Your task to perform on an android device: Find coffee shops on Maps Image 0: 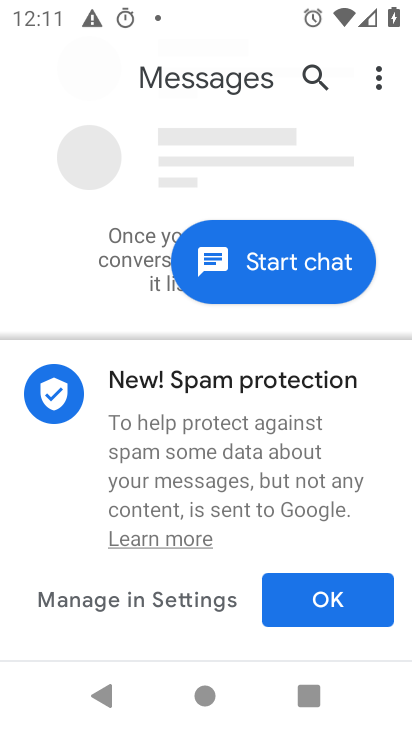
Step 0: press back button
Your task to perform on an android device: Find coffee shops on Maps Image 1: 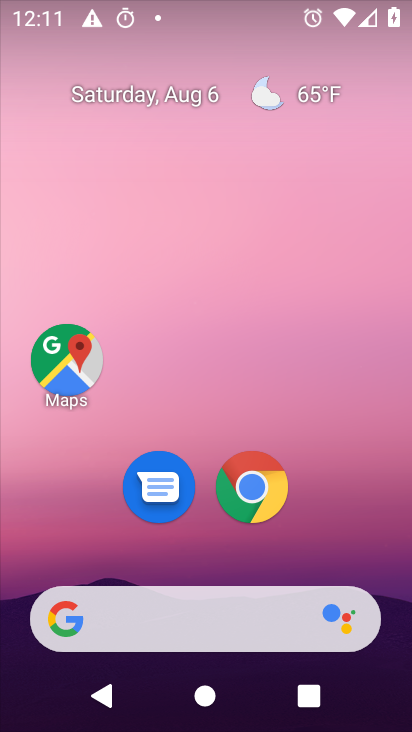
Step 1: click (81, 369)
Your task to perform on an android device: Find coffee shops on Maps Image 2: 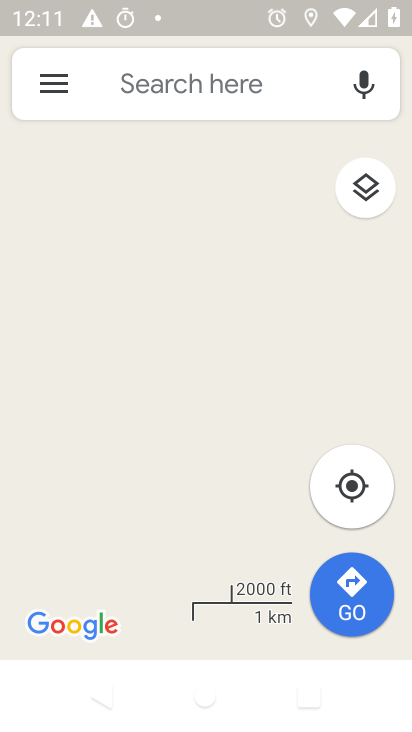
Step 2: click (200, 98)
Your task to perform on an android device: Find coffee shops on Maps Image 3: 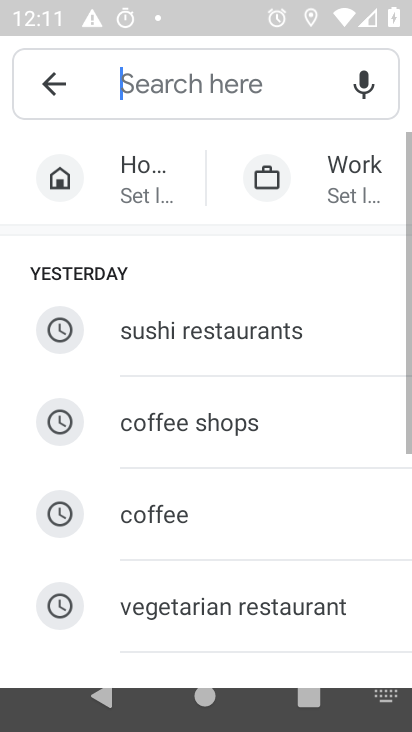
Step 3: click (214, 75)
Your task to perform on an android device: Find coffee shops on Maps Image 4: 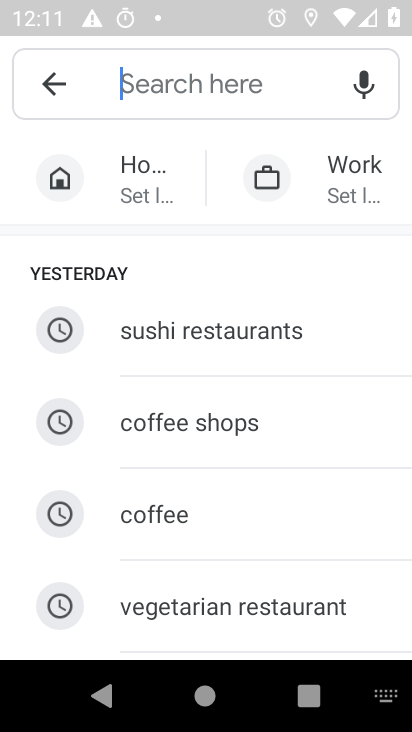
Step 4: click (188, 433)
Your task to perform on an android device: Find coffee shops on Maps Image 5: 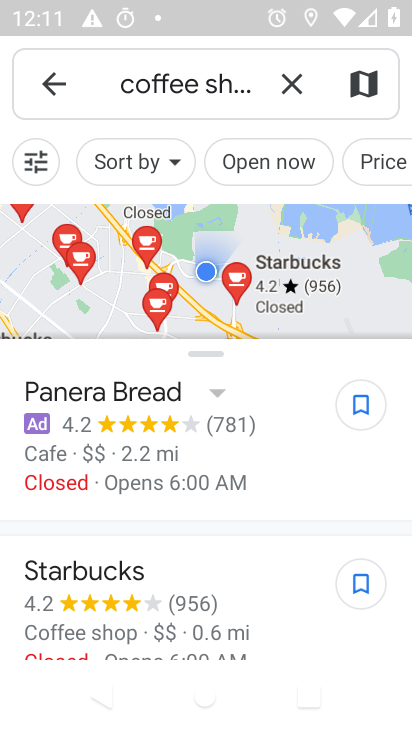
Step 5: task complete